Your task to perform on an android device: Go to eBay Image 0: 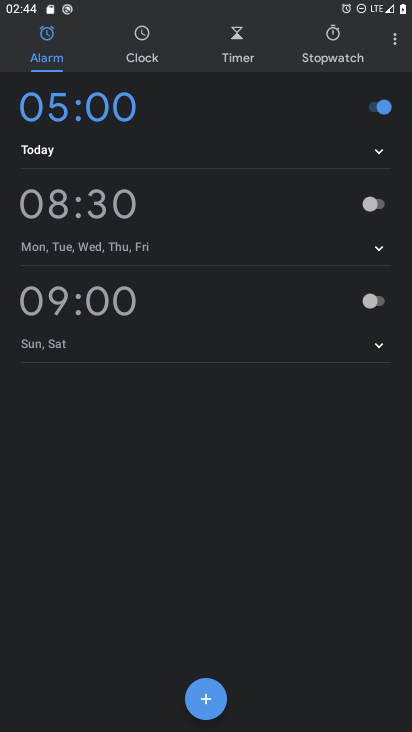
Step 0: press home button
Your task to perform on an android device: Go to eBay Image 1: 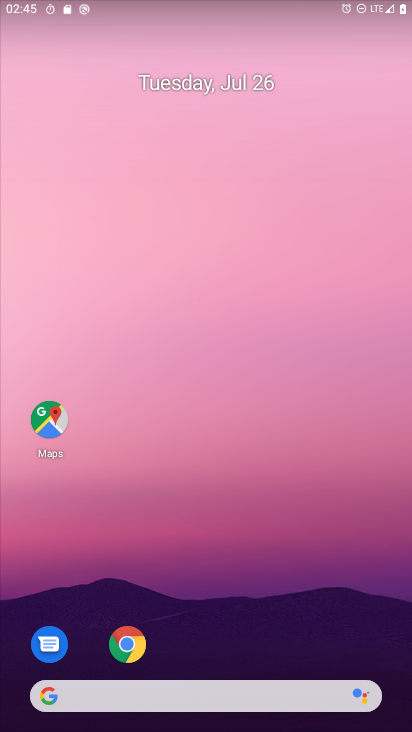
Step 1: click (124, 693)
Your task to perform on an android device: Go to eBay Image 2: 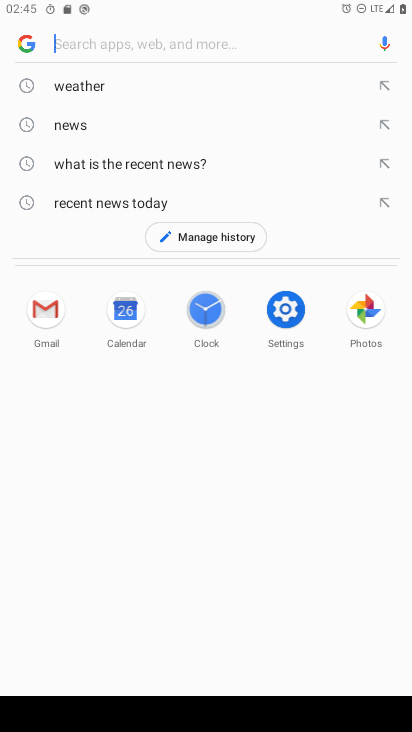
Step 2: click (108, 36)
Your task to perform on an android device: Go to eBay Image 3: 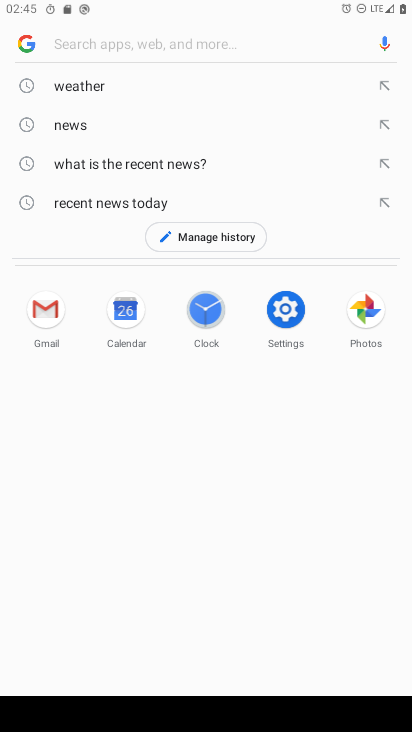
Step 3: type "ebay"
Your task to perform on an android device: Go to eBay Image 4: 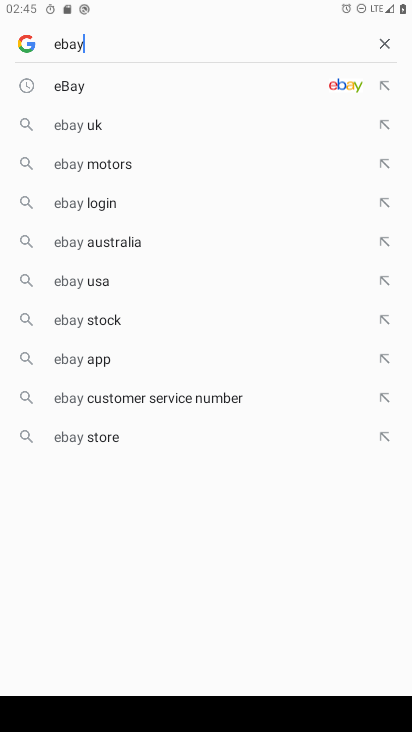
Step 4: click (71, 84)
Your task to perform on an android device: Go to eBay Image 5: 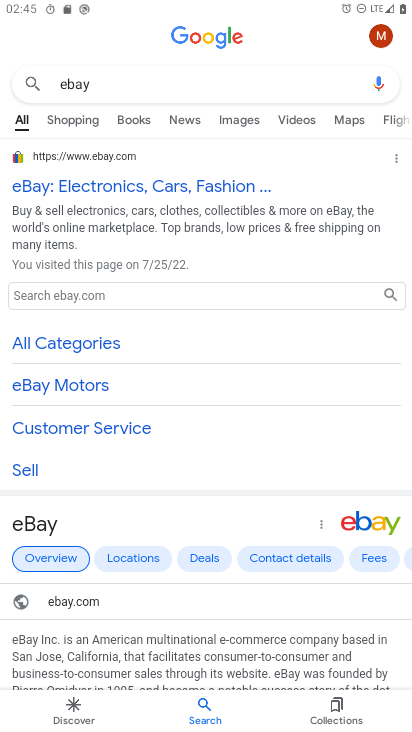
Step 5: click (50, 199)
Your task to perform on an android device: Go to eBay Image 6: 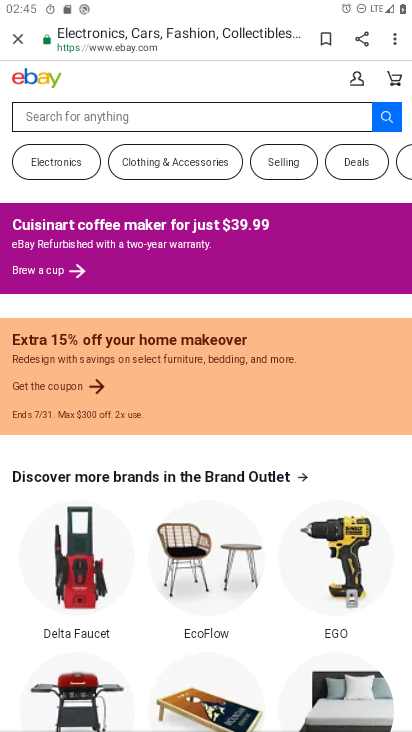
Step 6: task complete